Your task to perform on an android device: Go to Maps Image 0: 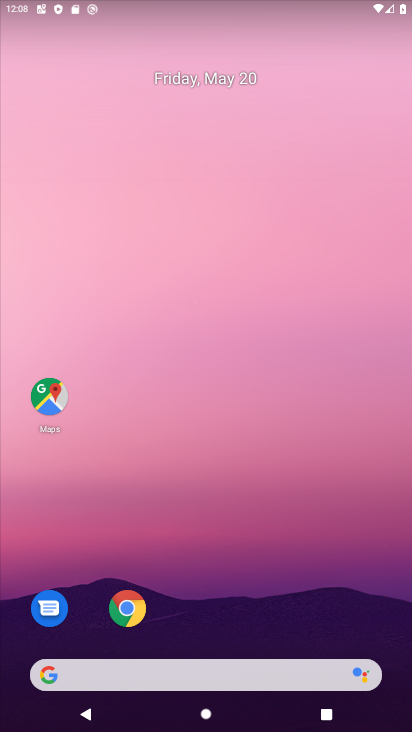
Step 0: drag from (335, 577) to (242, 220)
Your task to perform on an android device: Go to Maps Image 1: 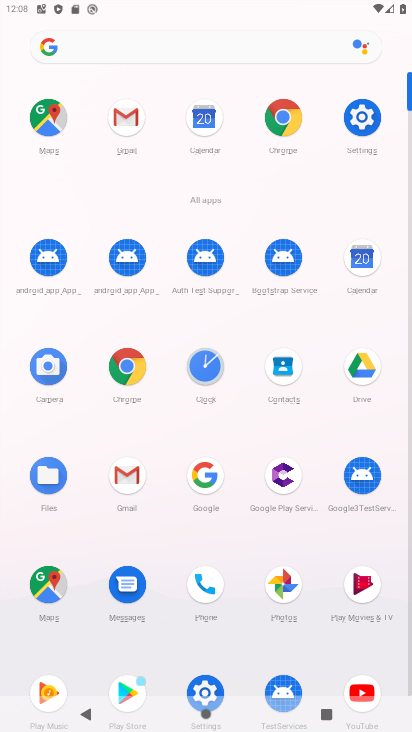
Step 1: click (37, 587)
Your task to perform on an android device: Go to Maps Image 2: 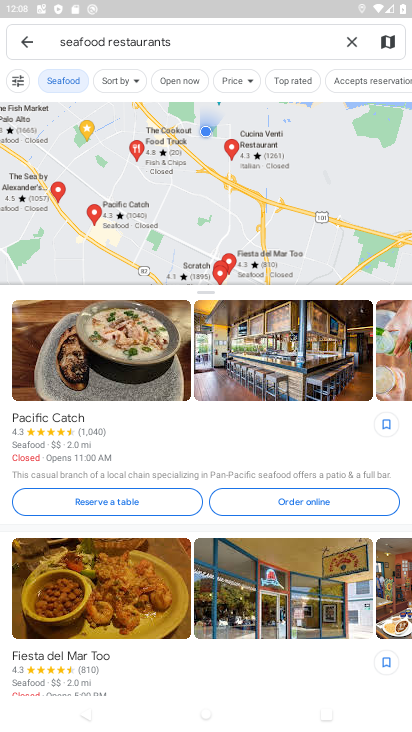
Step 2: task complete